Your task to perform on an android device: Search for beats solo 3 on amazon.com, select the first entry, add it to the cart, then select checkout. Image 0: 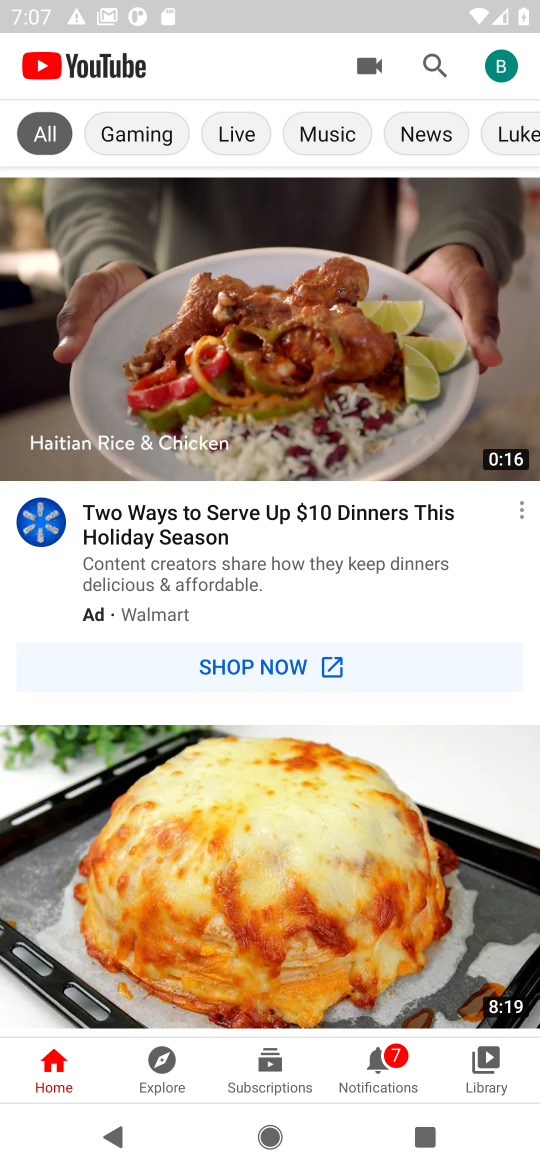
Step 0: press home button
Your task to perform on an android device: Search for beats solo 3 on amazon.com, select the first entry, add it to the cart, then select checkout. Image 1: 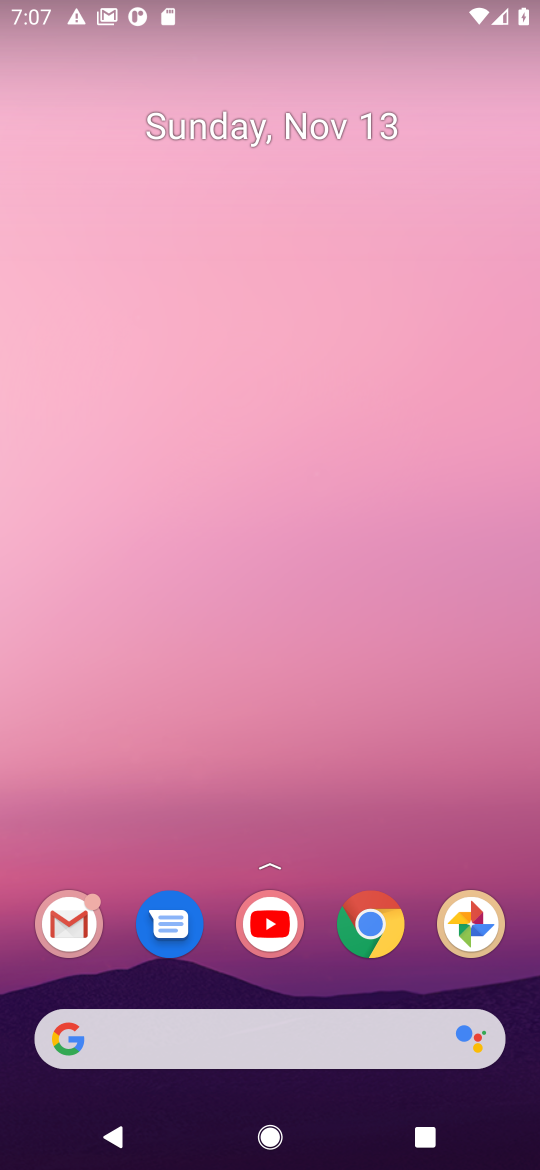
Step 1: click (370, 928)
Your task to perform on an android device: Search for beats solo 3 on amazon.com, select the first entry, add it to the cart, then select checkout. Image 2: 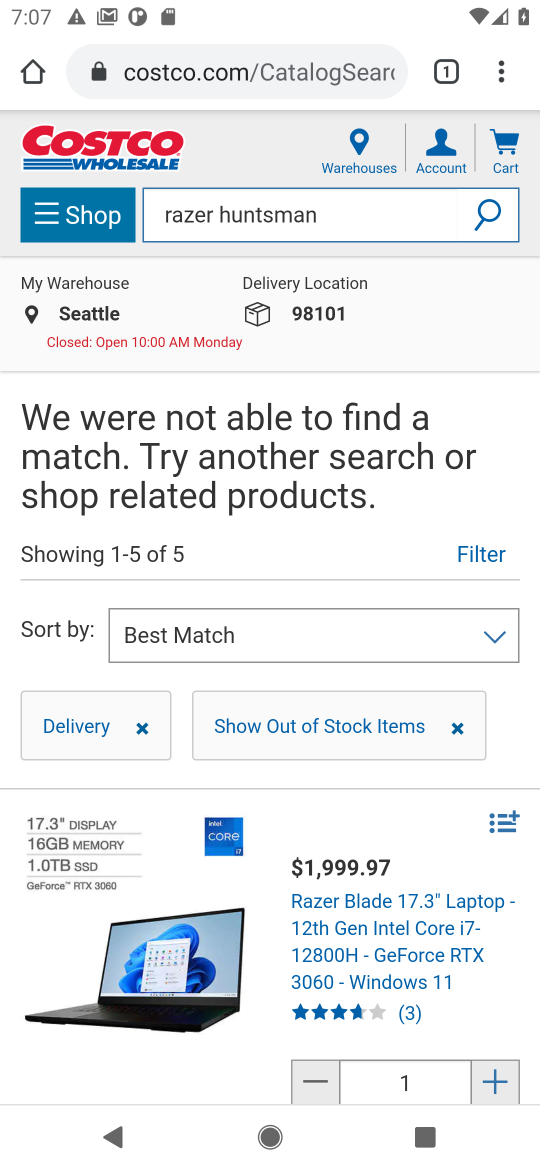
Step 2: click (256, 80)
Your task to perform on an android device: Search for beats solo 3 on amazon.com, select the first entry, add it to the cart, then select checkout. Image 3: 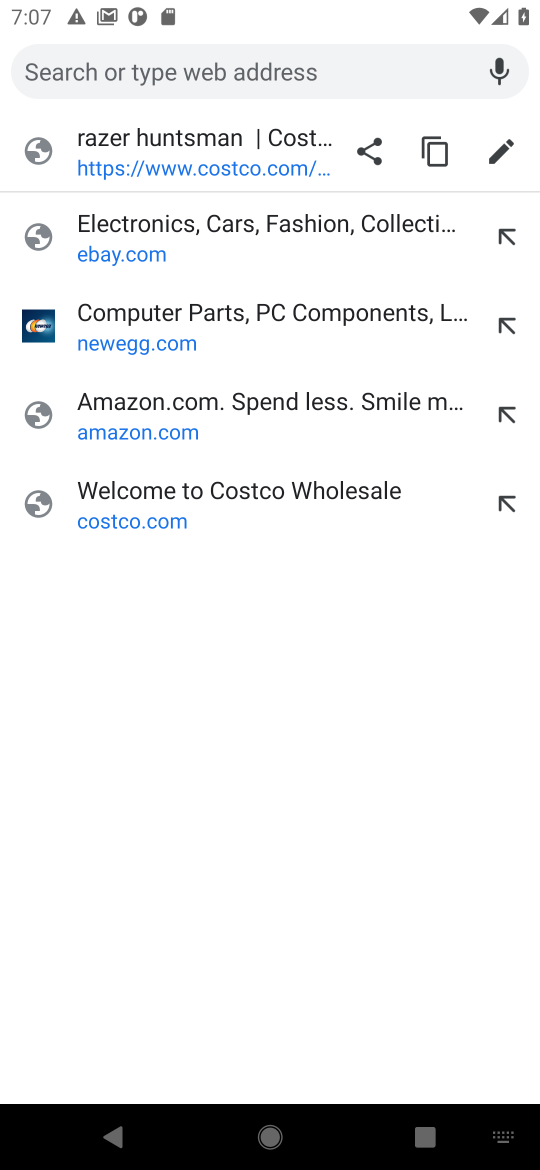
Step 3: click (103, 414)
Your task to perform on an android device: Search for beats solo 3 on amazon.com, select the first entry, add it to the cart, then select checkout. Image 4: 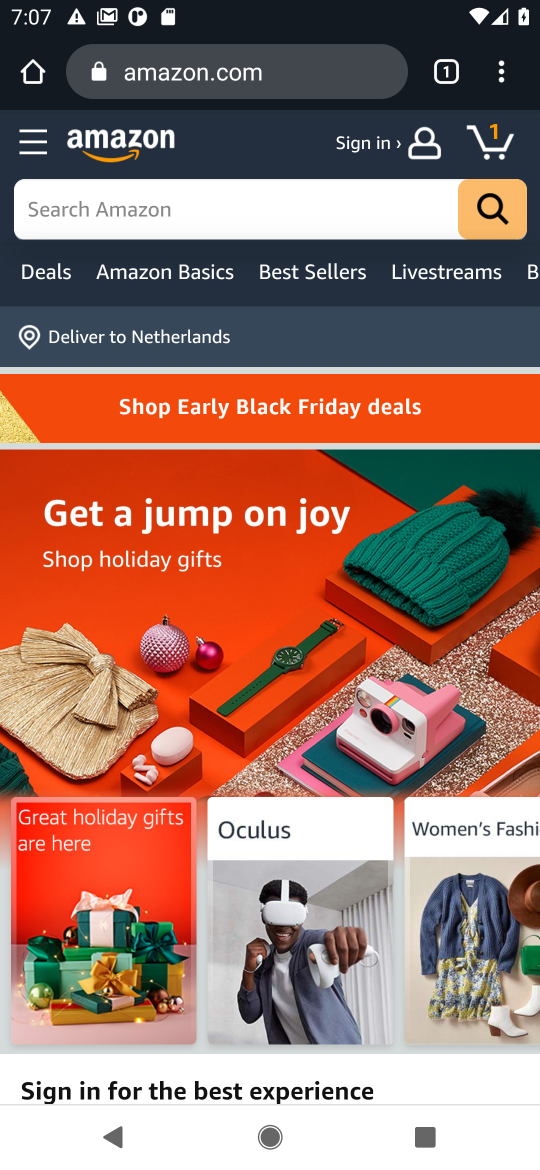
Step 4: click (172, 223)
Your task to perform on an android device: Search for beats solo 3 on amazon.com, select the first entry, add it to the cart, then select checkout. Image 5: 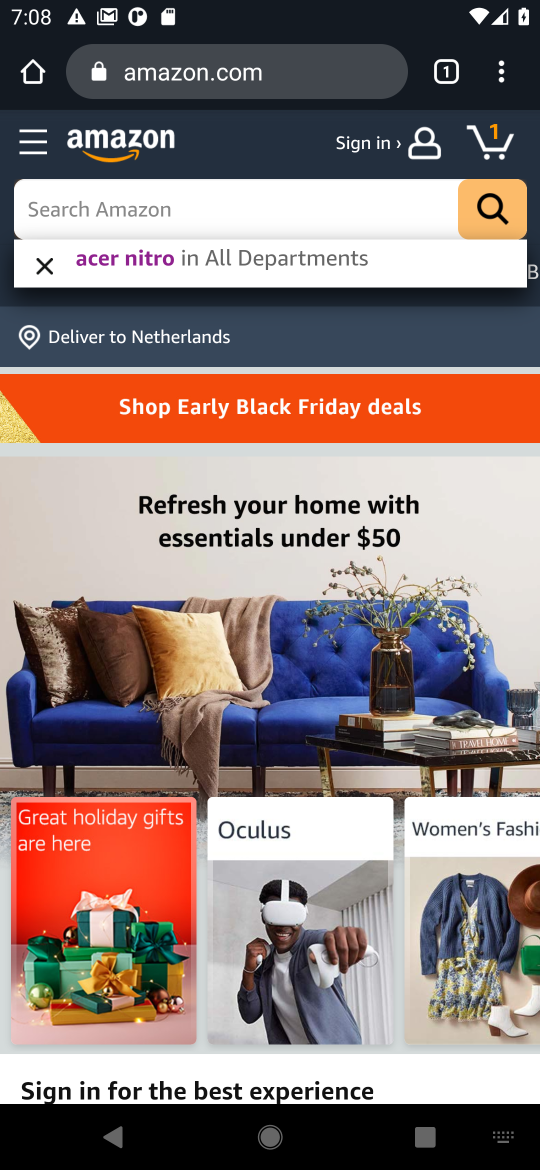
Step 5: type " beats solo 3"
Your task to perform on an android device: Search for beats solo 3 on amazon.com, select the first entry, add it to the cart, then select checkout. Image 6: 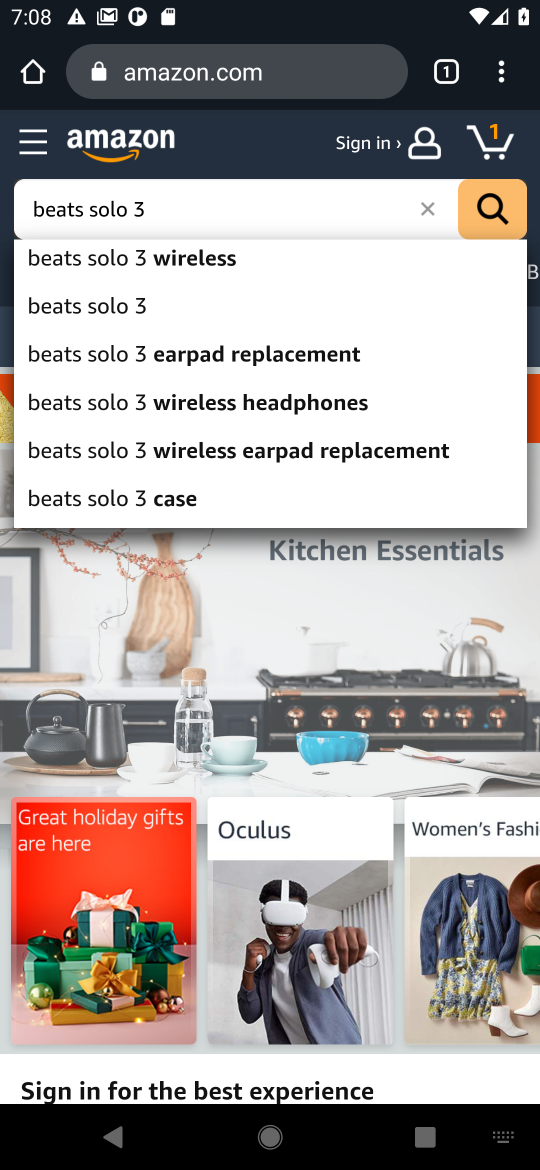
Step 6: click (100, 304)
Your task to perform on an android device: Search for beats solo 3 on amazon.com, select the first entry, add it to the cart, then select checkout. Image 7: 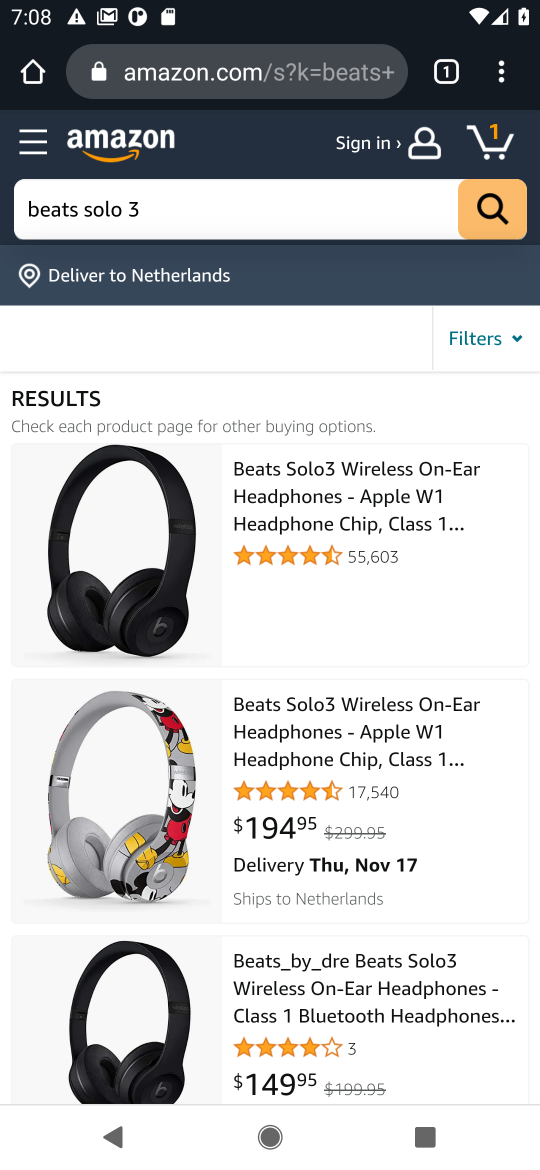
Step 7: click (172, 567)
Your task to perform on an android device: Search for beats solo 3 on amazon.com, select the first entry, add it to the cart, then select checkout. Image 8: 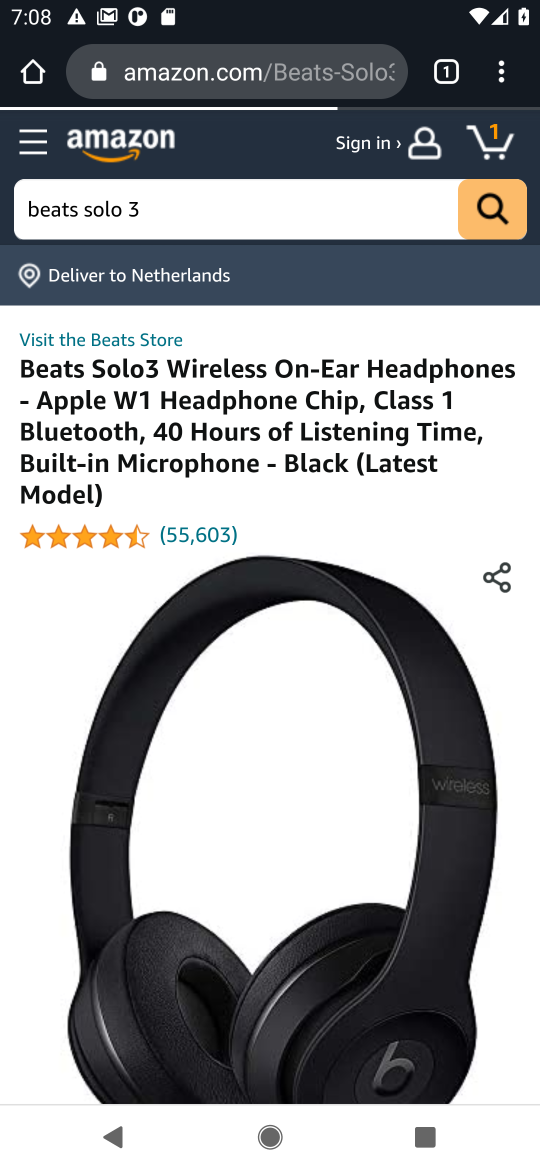
Step 8: task complete